Your task to perform on an android device: Go to settings Image 0: 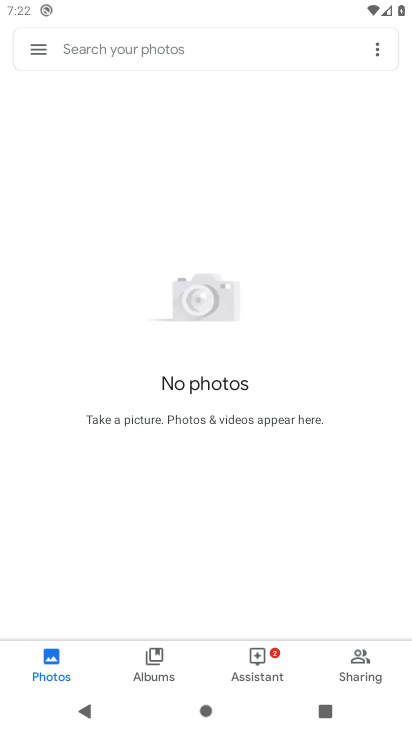
Step 0: press home button
Your task to perform on an android device: Go to settings Image 1: 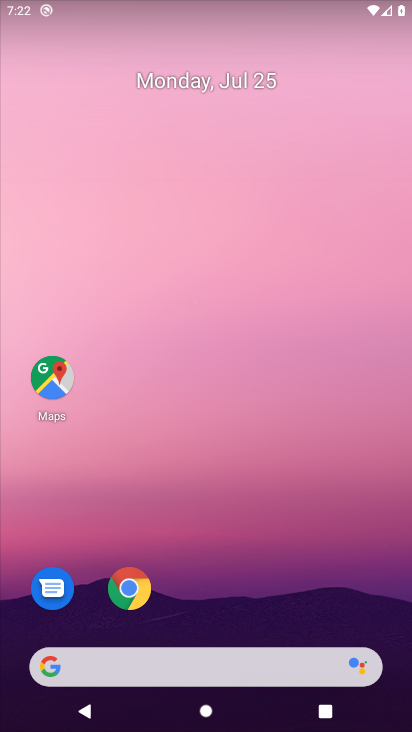
Step 1: drag from (194, 526) to (155, 69)
Your task to perform on an android device: Go to settings Image 2: 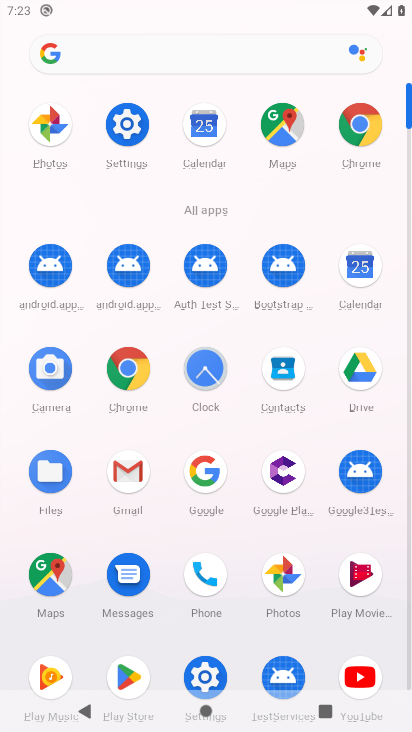
Step 2: click (204, 671)
Your task to perform on an android device: Go to settings Image 3: 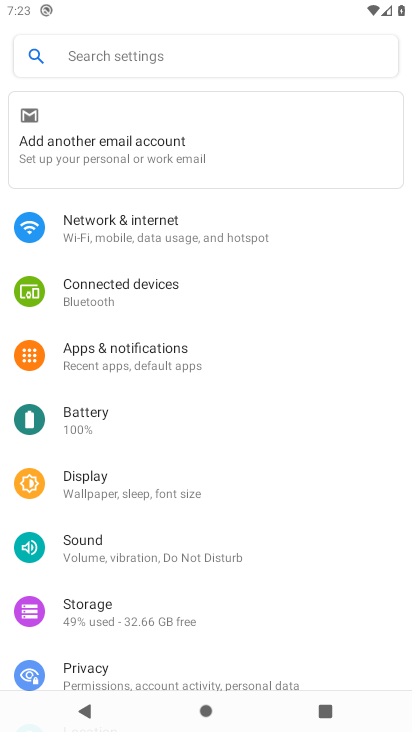
Step 3: task complete